Your task to perform on an android device: Open sound settings Image 0: 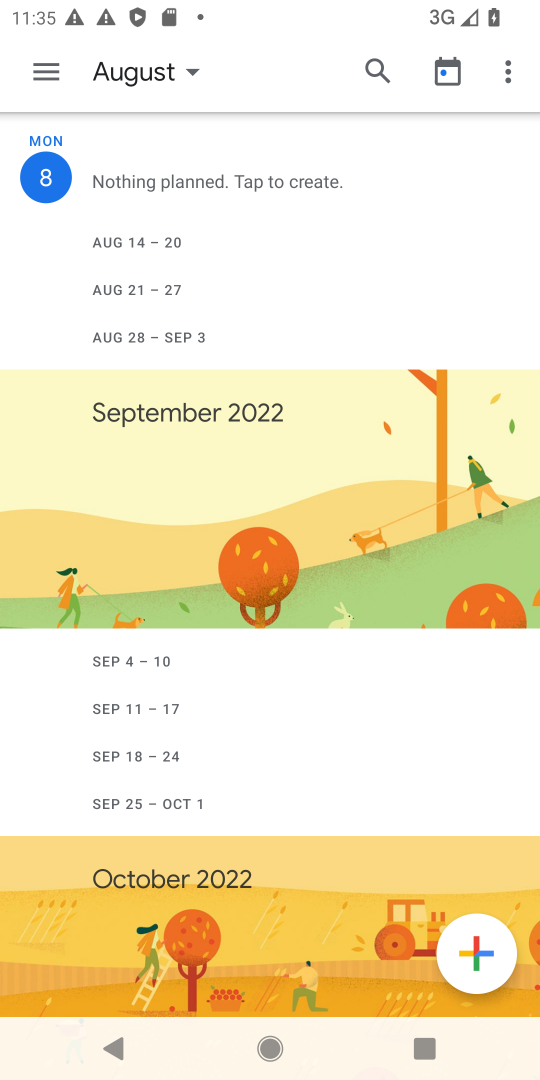
Step 0: press home button
Your task to perform on an android device: Open sound settings Image 1: 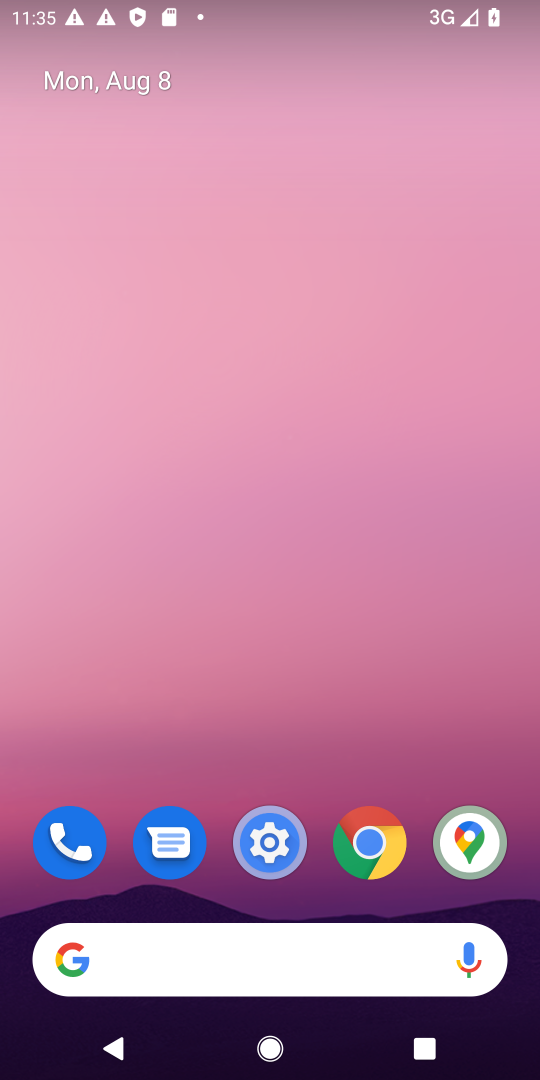
Step 1: click (227, 823)
Your task to perform on an android device: Open sound settings Image 2: 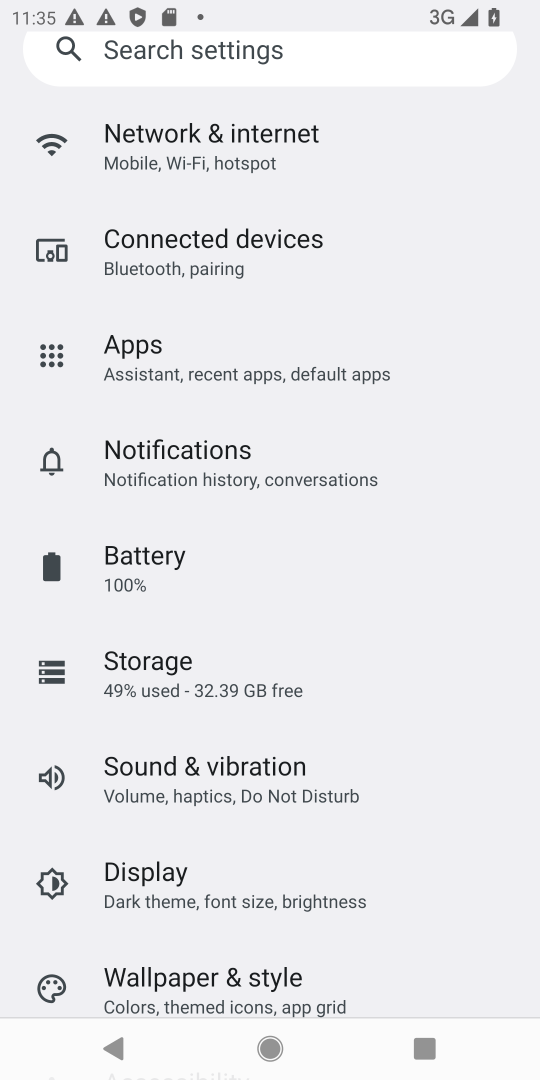
Step 2: click (130, 778)
Your task to perform on an android device: Open sound settings Image 3: 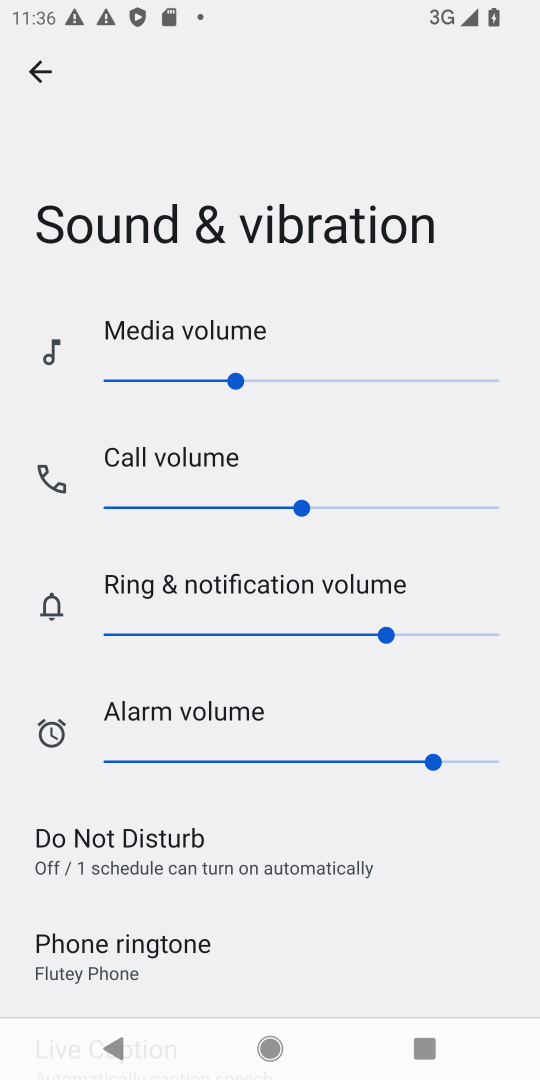
Step 3: task complete